Your task to perform on an android device: open chrome and create a bookmark for the current page Image 0: 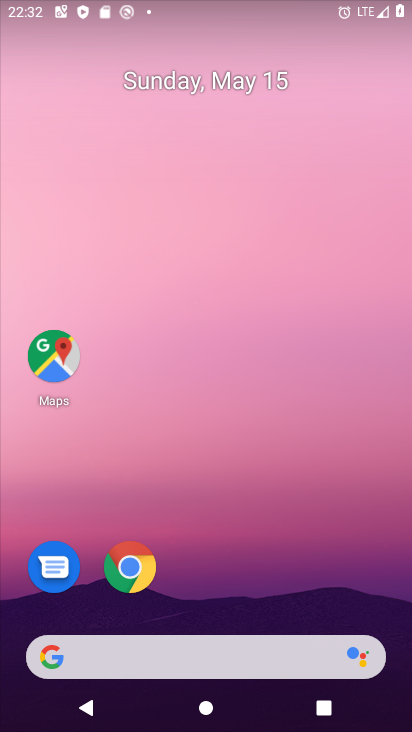
Step 0: press home button
Your task to perform on an android device: open chrome and create a bookmark for the current page Image 1: 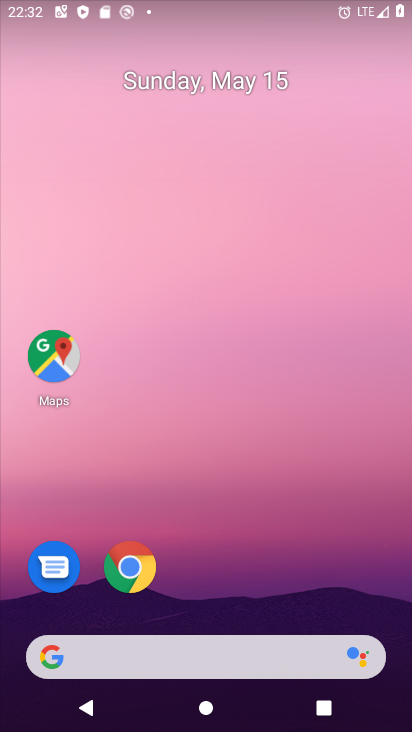
Step 1: click (133, 569)
Your task to perform on an android device: open chrome and create a bookmark for the current page Image 2: 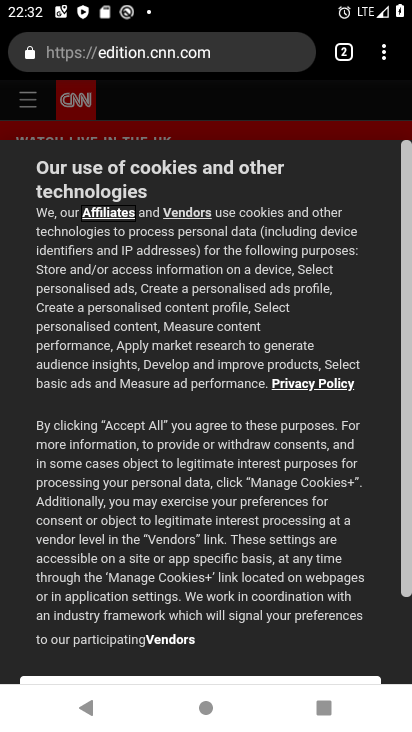
Step 2: click (388, 53)
Your task to perform on an android device: open chrome and create a bookmark for the current page Image 3: 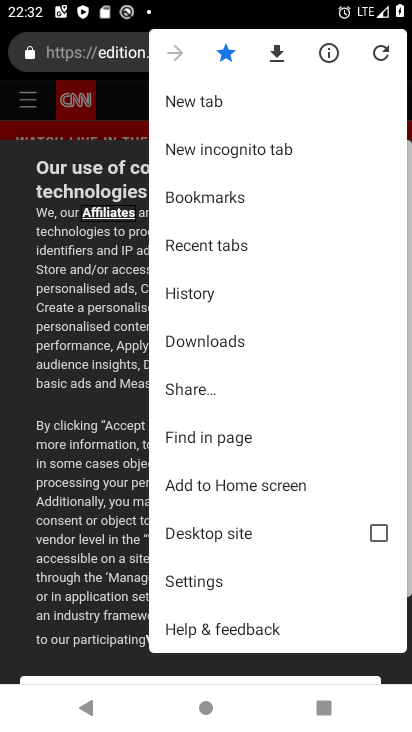
Step 3: task complete